Your task to perform on an android device: change notifications settings Image 0: 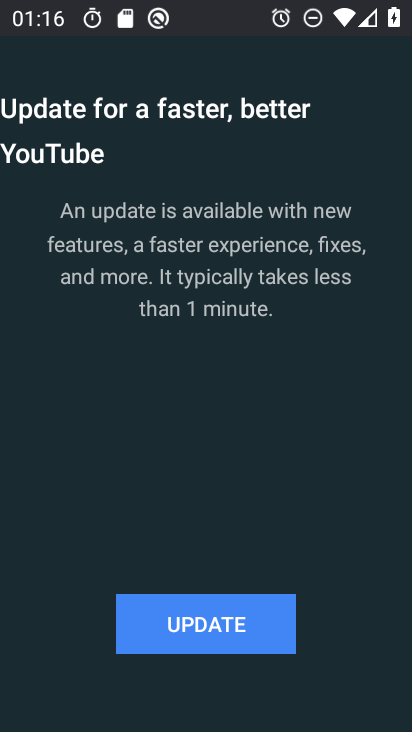
Step 0: press back button
Your task to perform on an android device: change notifications settings Image 1: 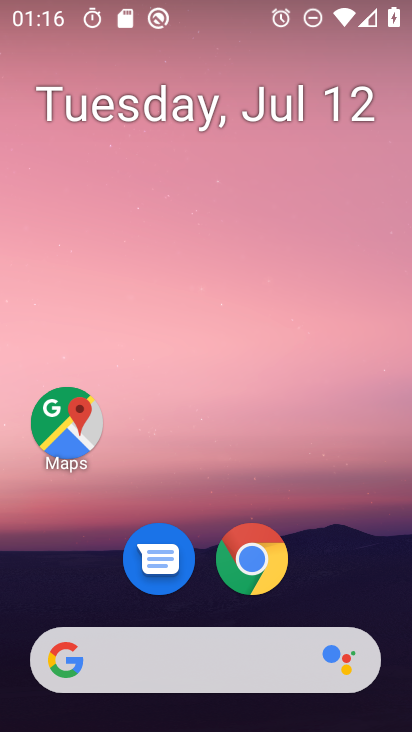
Step 1: drag from (205, 550) to (275, 161)
Your task to perform on an android device: change notifications settings Image 2: 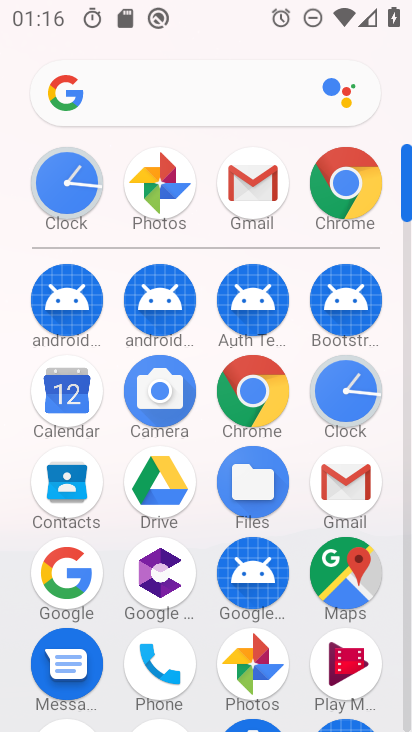
Step 2: drag from (205, 658) to (268, 84)
Your task to perform on an android device: change notifications settings Image 3: 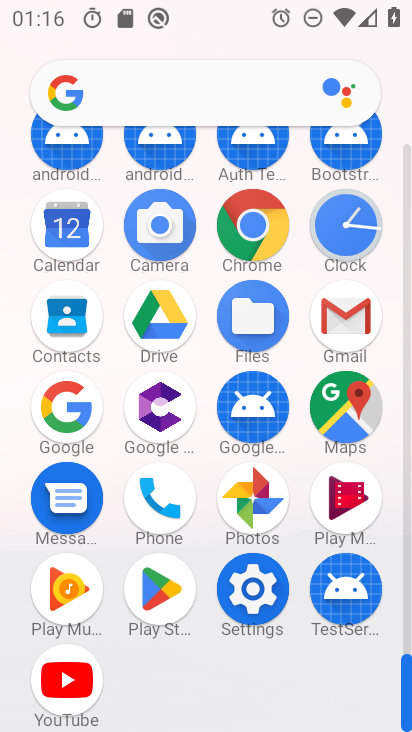
Step 3: click (237, 614)
Your task to perform on an android device: change notifications settings Image 4: 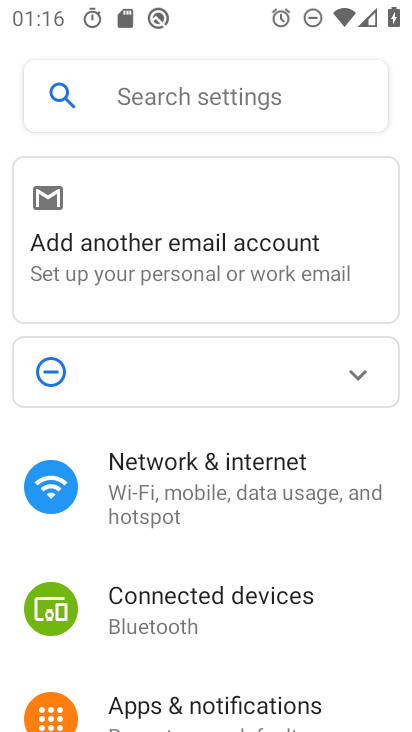
Step 4: click (201, 701)
Your task to perform on an android device: change notifications settings Image 5: 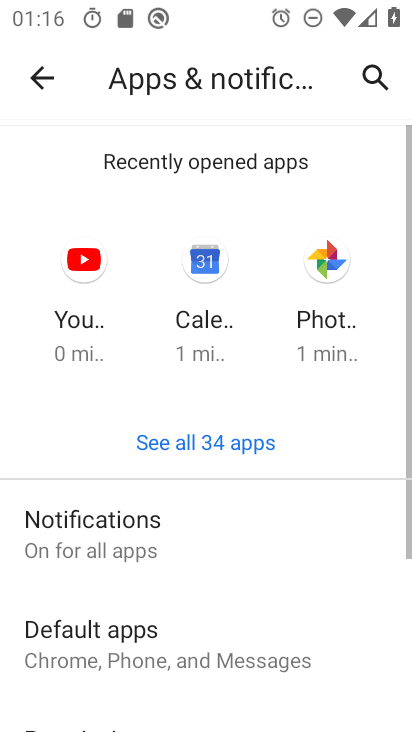
Step 5: click (174, 536)
Your task to perform on an android device: change notifications settings Image 6: 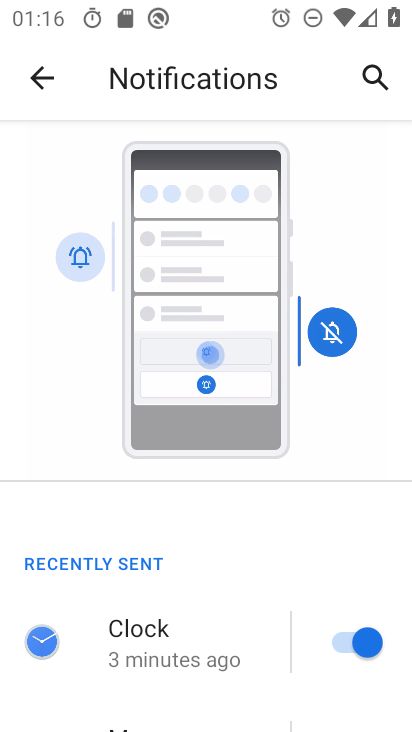
Step 6: drag from (176, 659) to (279, 149)
Your task to perform on an android device: change notifications settings Image 7: 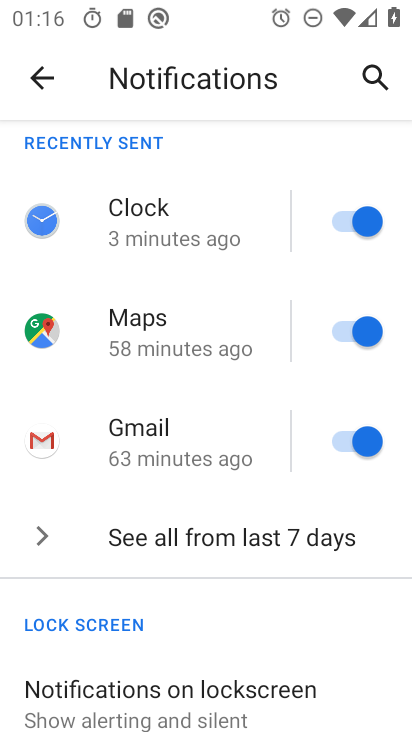
Step 7: drag from (146, 655) to (225, 143)
Your task to perform on an android device: change notifications settings Image 8: 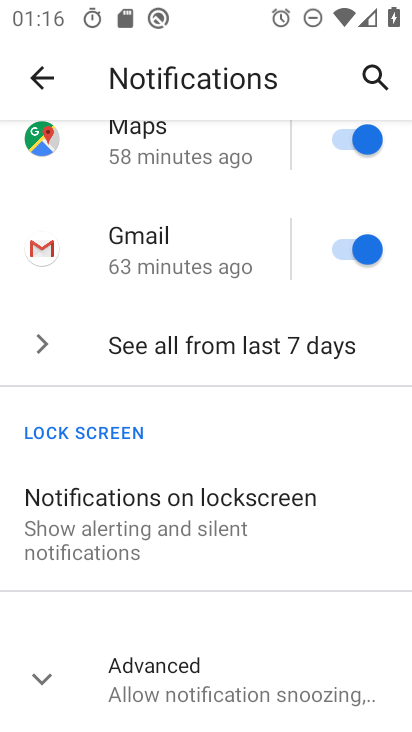
Step 8: click (138, 675)
Your task to perform on an android device: change notifications settings Image 9: 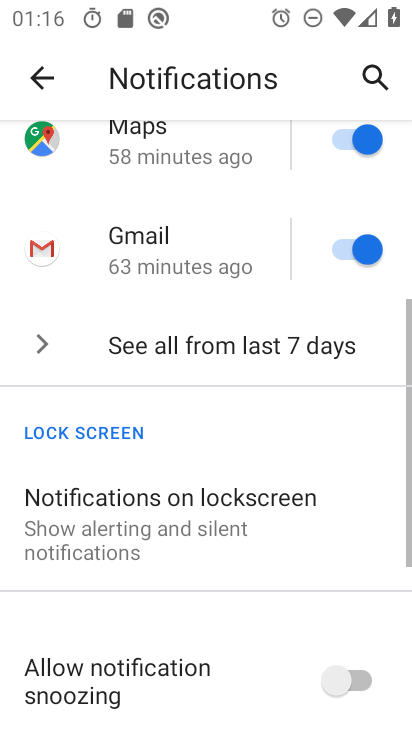
Step 9: drag from (138, 675) to (202, 449)
Your task to perform on an android device: change notifications settings Image 10: 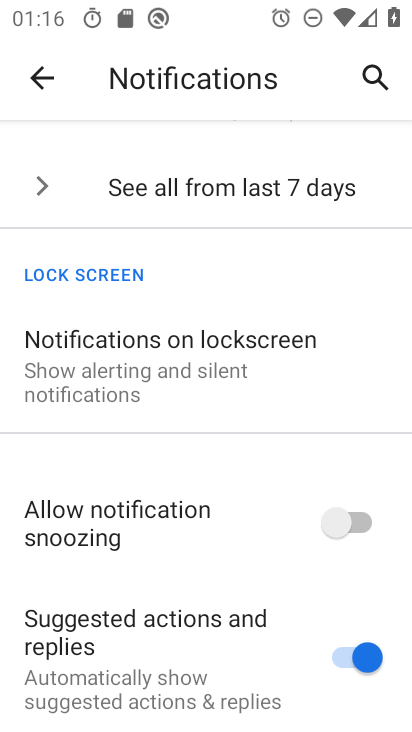
Step 10: click (348, 516)
Your task to perform on an android device: change notifications settings Image 11: 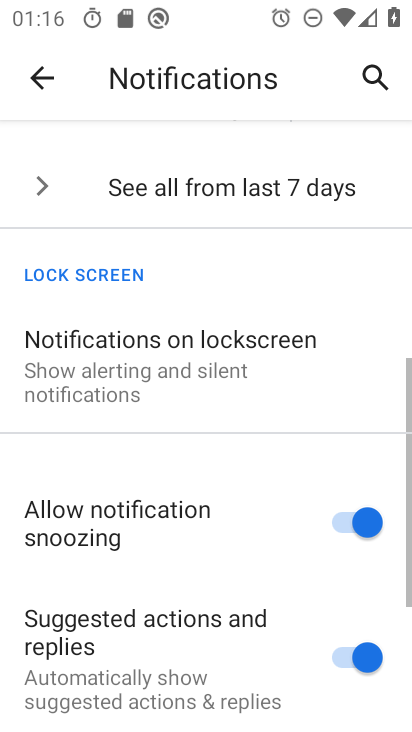
Step 11: task complete